Your task to perform on an android device: choose inbox layout in the gmail app Image 0: 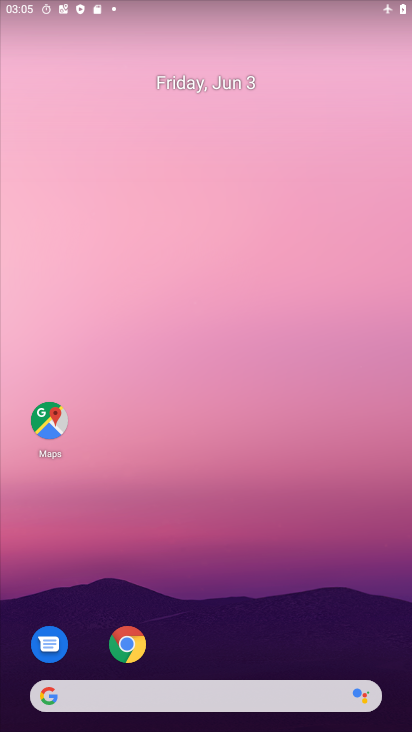
Step 0: drag from (229, 390) to (230, 256)
Your task to perform on an android device: choose inbox layout in the gmail app Image 1: 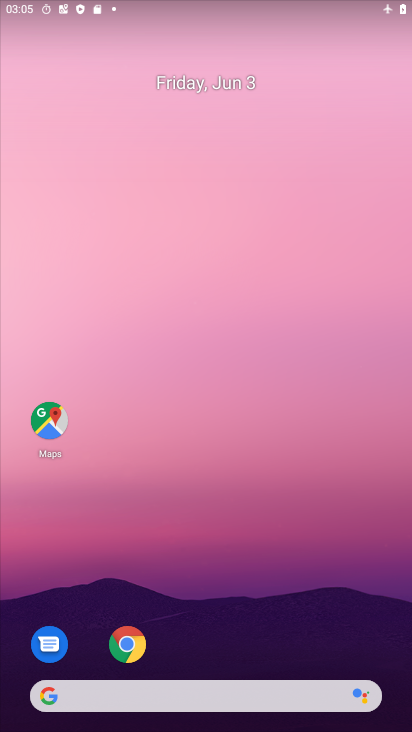
Step 1: drag from (197, 660) to (197, 198)
Your task to perform on an android device: choose inbox layout in the gmail app Image 2: 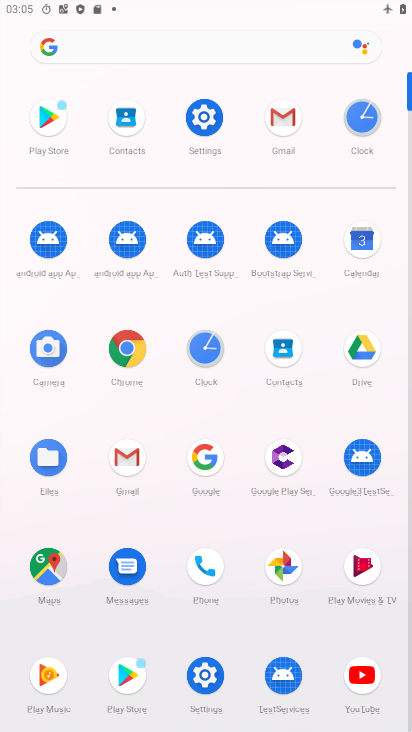
Step 2: click (263, 133)
Your task to perform on an android device: choose inbox layout in the gmail app Image 3: 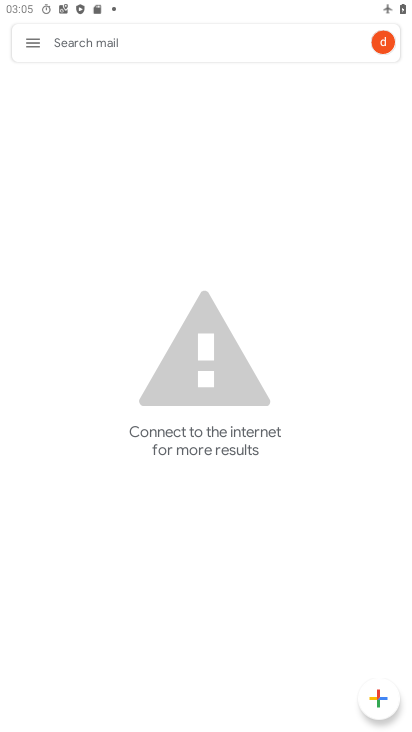
Step 3: task complete